Your task to perform on an android device: snooze an email in the gmail app Image 0: 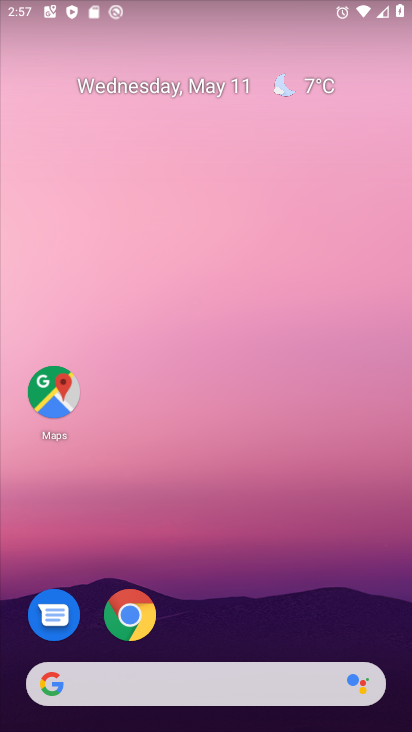
Step 0: drag from (254, 155) to (267, 72)
Your task to perform on an android device: snooze an email in the gmail app Image 1: 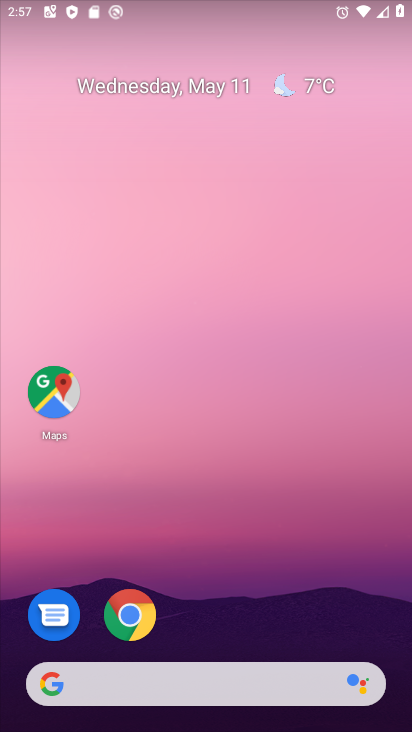
Step 1: drag from (251, 604) to (307, 89)
Your task to perform on an android device: snooze an email in the gmail app Image 2: 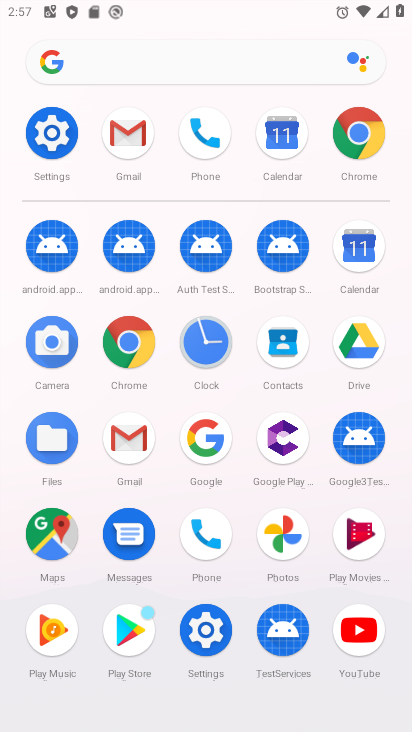
Step 2: click (130, 137)
Your task to perform on an android device: snooze an email in the gmail app Image 3: 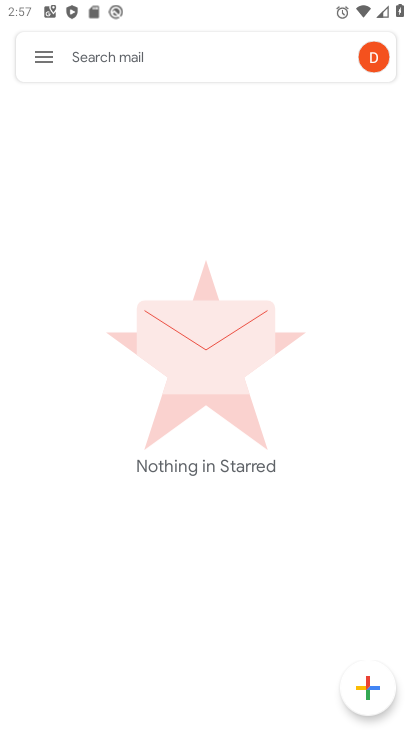
Step 3: click (40, 53)
Your task to perform on an android device: snooze an email in the gmail app Image 4: 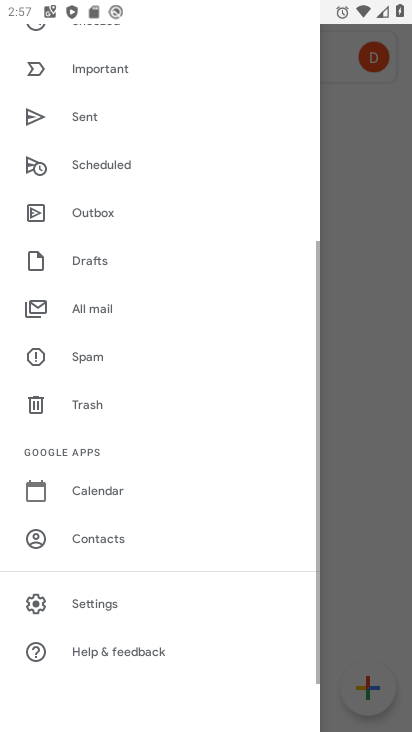
Step 4: click (104, 318)
Your task to perform on an android device: snooze an email in the gmail app Image 5: 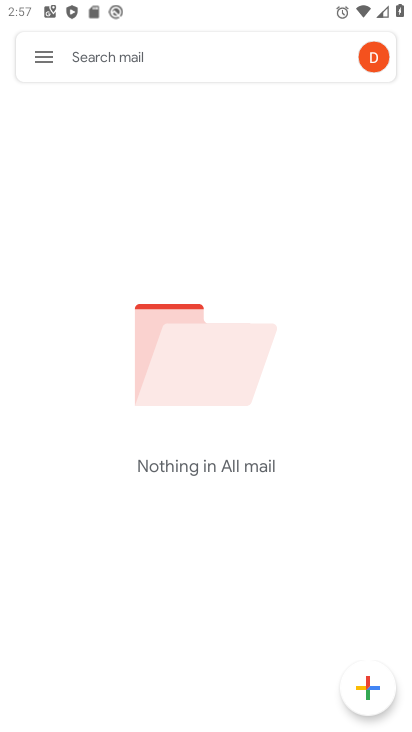
Step 5: task complete